Your task to perform on an android device: Go to Wikipedia Image 0: 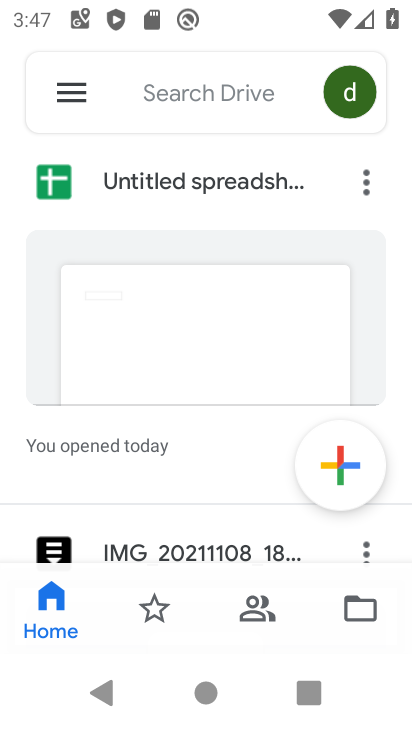
Step 0: press home button
Your task to perform on an android device: Go to Wikipedia Image 1: 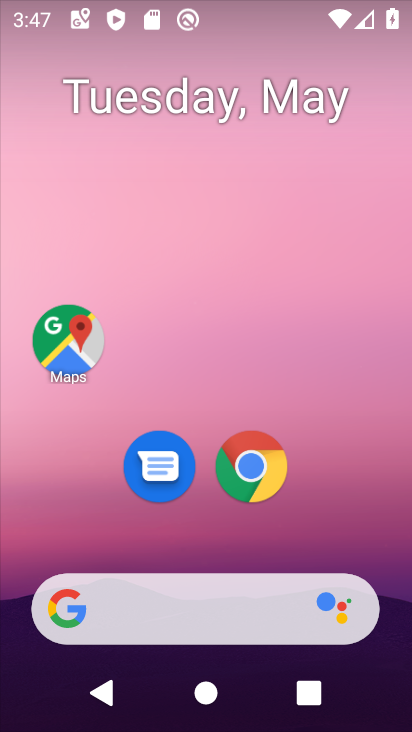
Step 1: click (286, 475)
Your task to perform on an android device: Go to Wikipedia Image 2: 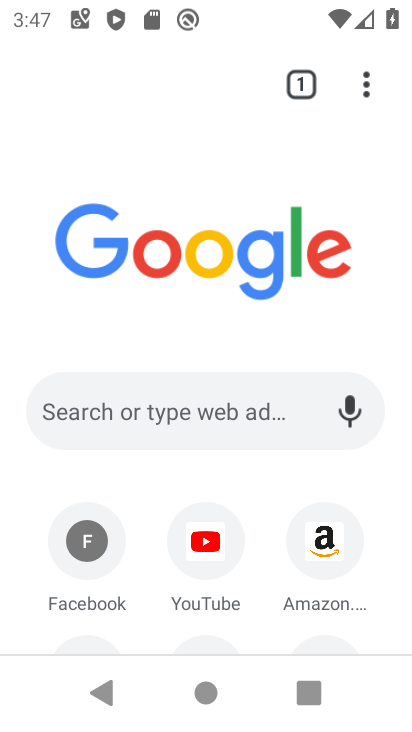
Step 2: drag from (148, 614) to (198, 396)
Your task to perform on an android device: Go to Wikipedia Image 3: 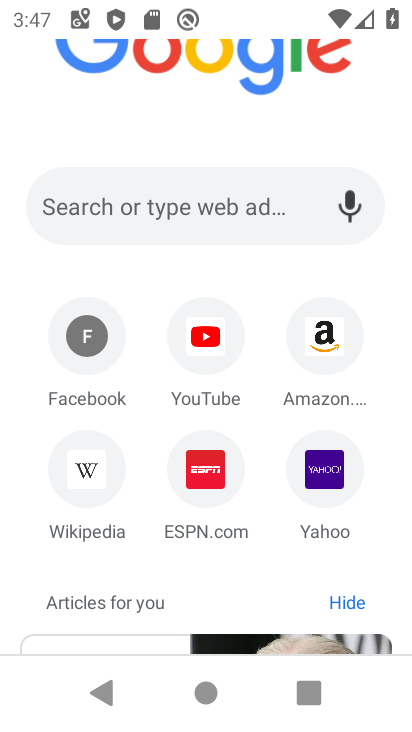
Step 3: click (91, 469)
Your task to perform on an android device: Go to Wikipedia Image 4: 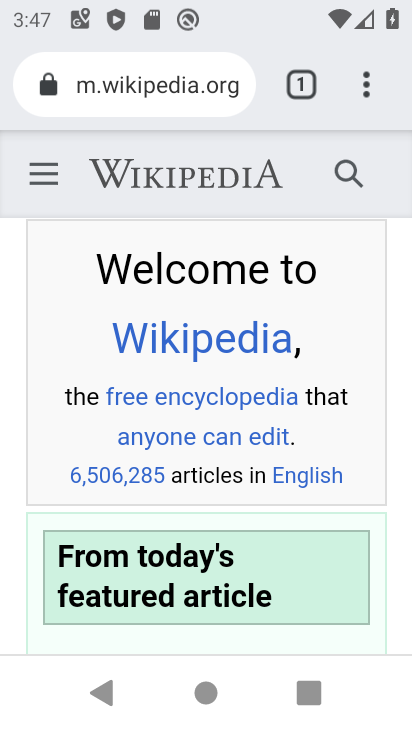
Step 4: task complete